Your task to perform on an android device: all mails in gmail Image 0: 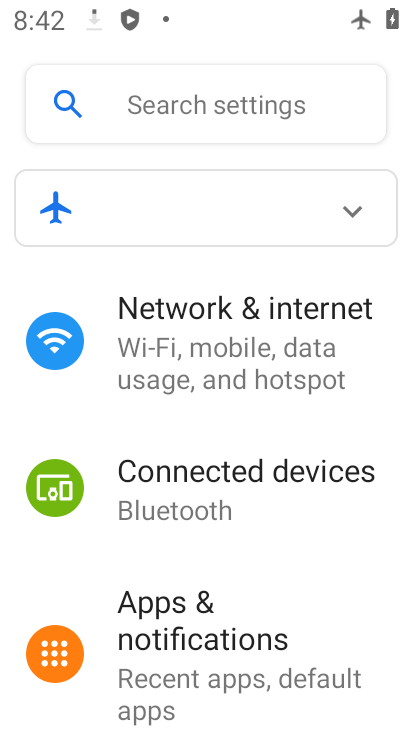
Step 0: press home button
Your task to perform on an android device: all mails in gmail Image 1: 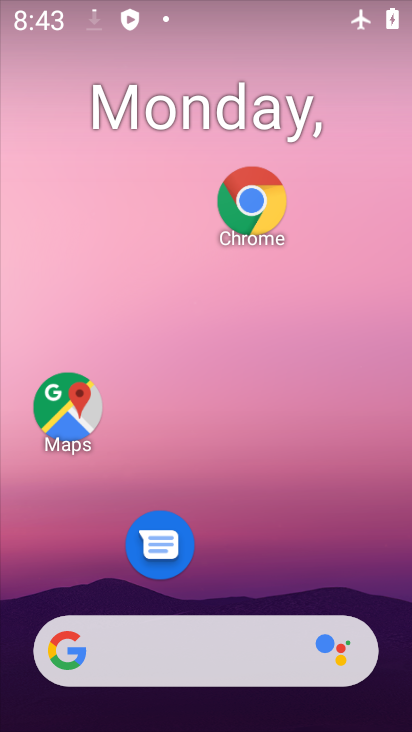
Step 1: drag from (236, 528) to (196, 112)
Your task to perform on an android device: all mails in gmail Image 2: 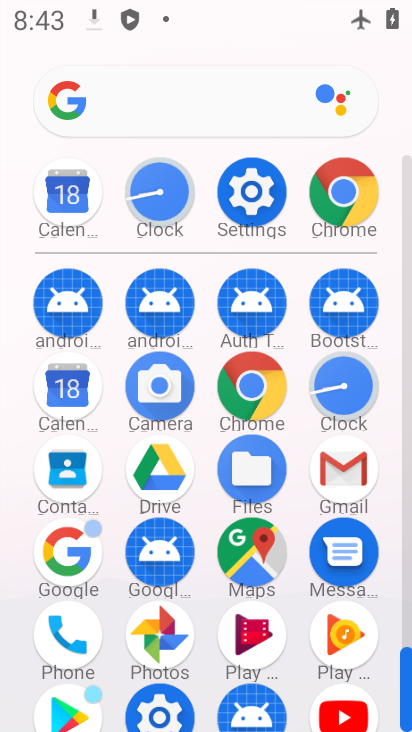
Step 2: click (322, 477)
Your task to perform on an android device: all mails in gmail Image 3: 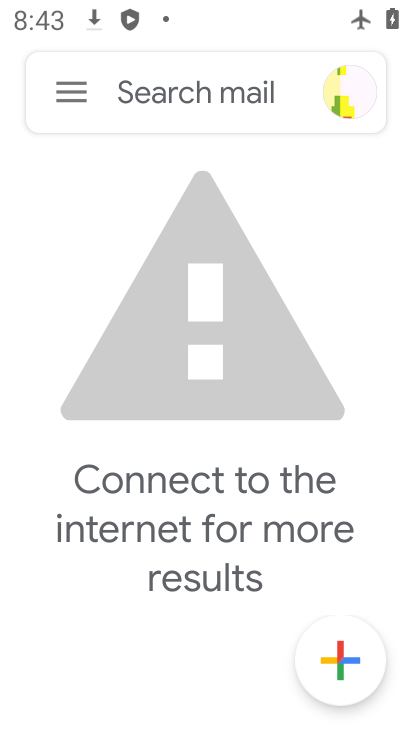
Step 3: click (65, 87)
Your task to perform on an android device: all mails in gmail Image 4: 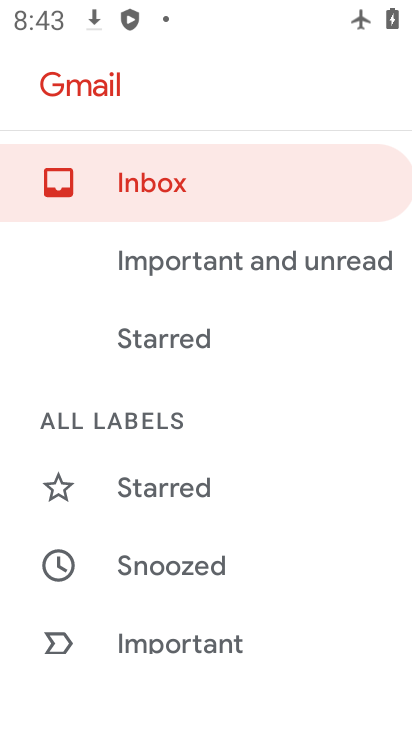
Step 4: drag from (225, 598) to (247, 239)
Your task to perform on an android device: all mails in gmail Image 5: 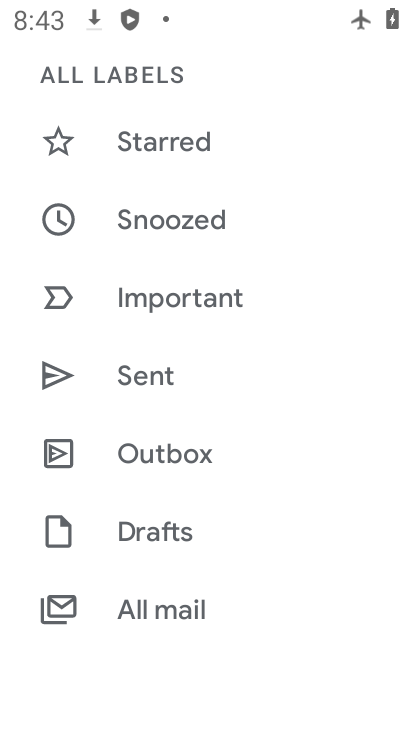
Step 5: click (193, 594)
Your task to perform on an android device: all mails in gmail Image 6: 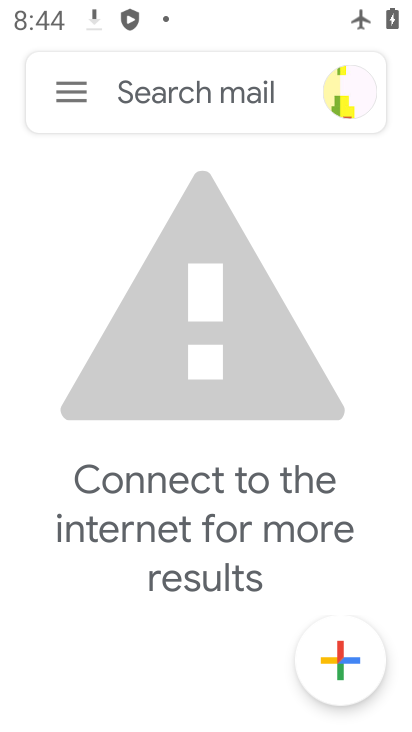
Step 6: click (68, 87)
Your task to perform on an android device: all mails in gmail Image 7: 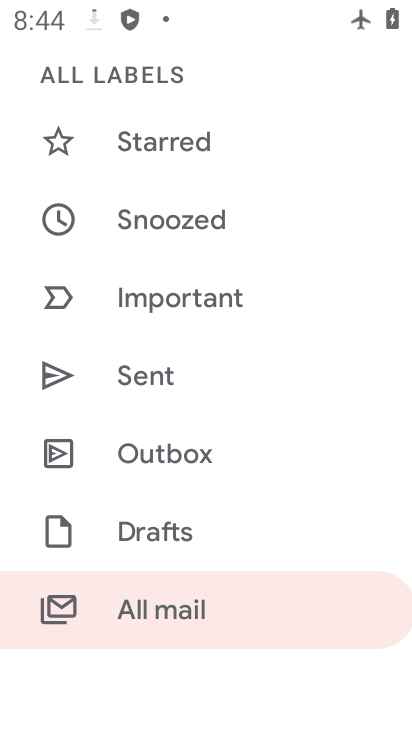
Step 7: click (204, 596)
Your task to perform on an android device: all mails in gmail Image 8: 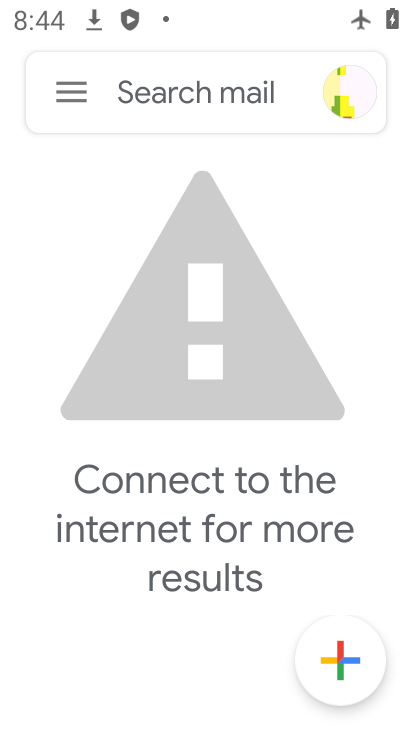
Step 8: task complete